Your task to perform on an android device: Open CNN.com Image 0: 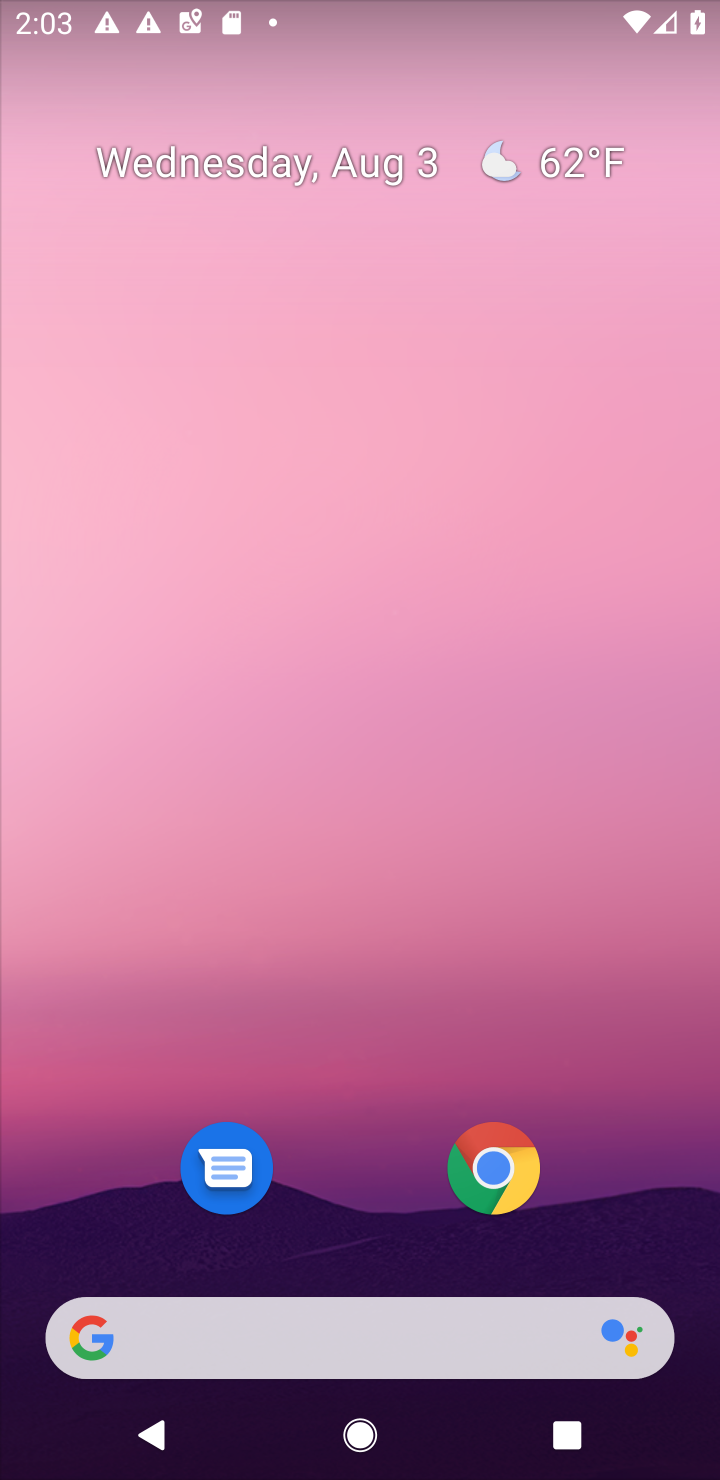
Step 0: click (498, 1168)
Your task to perform on an android device: Open CNN.com Image 1: 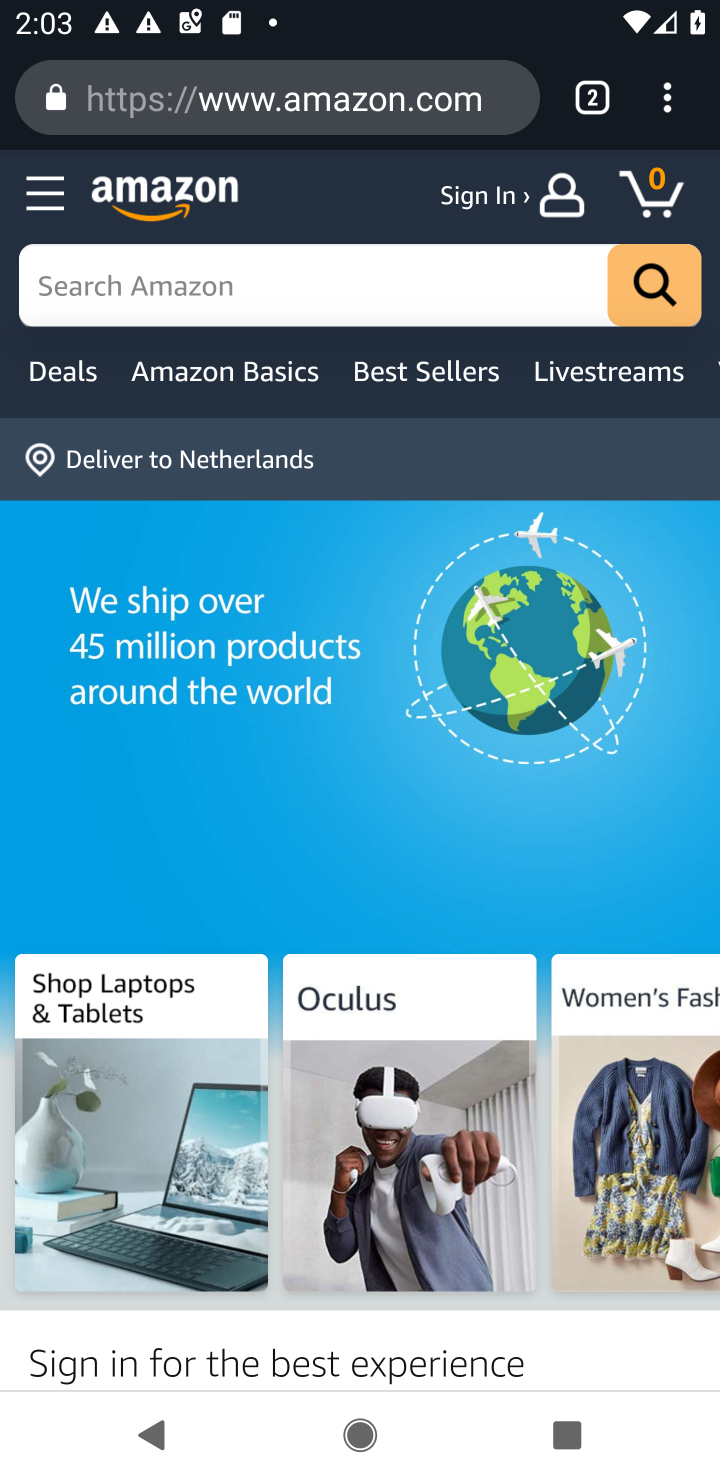
Step 1: click (499, 98)
Your task to perform on an android device: Open CNN.com Image 2: 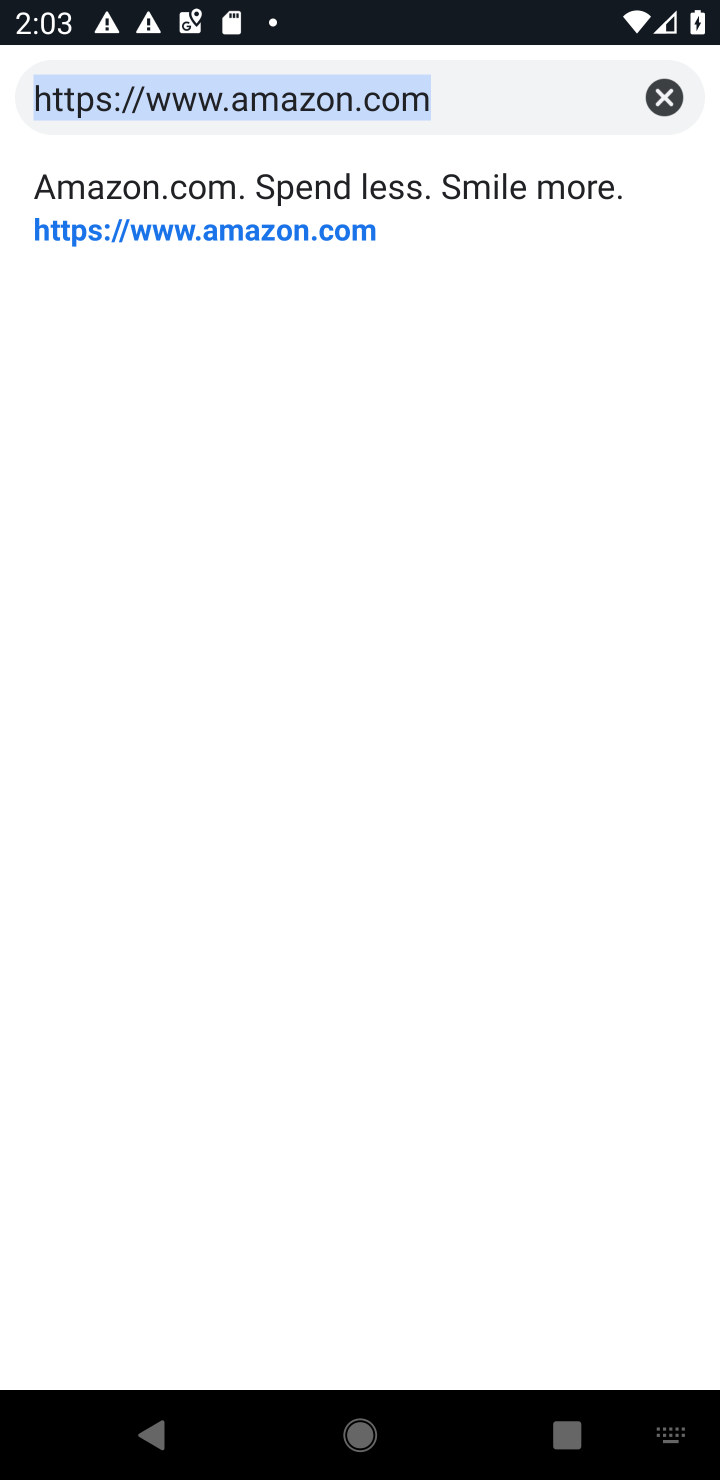
Step 2: click (667, 95)
Your task to perform on an android device: Open CNN.com Image 3: 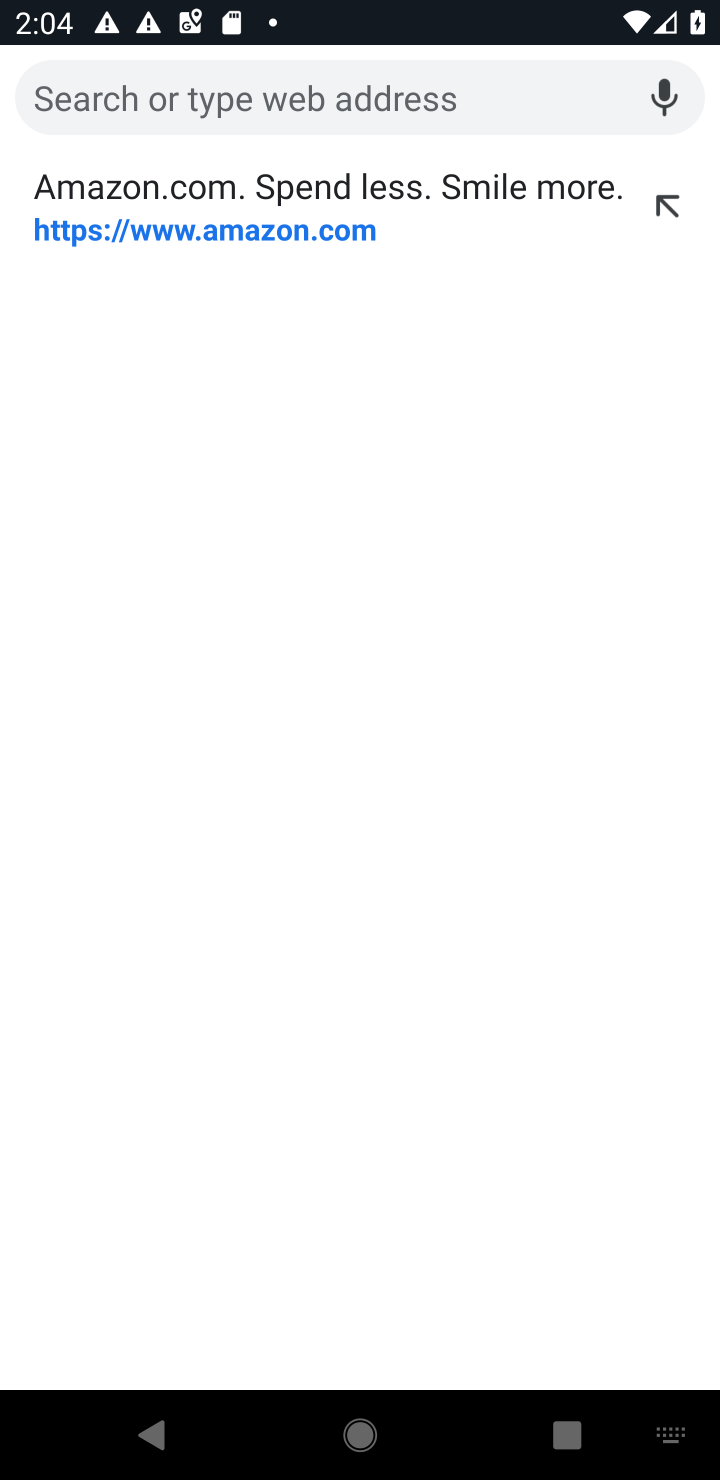
Step 3: type "cnn.com"
Your task to perform on an android device: Open CNN.com Image 4: 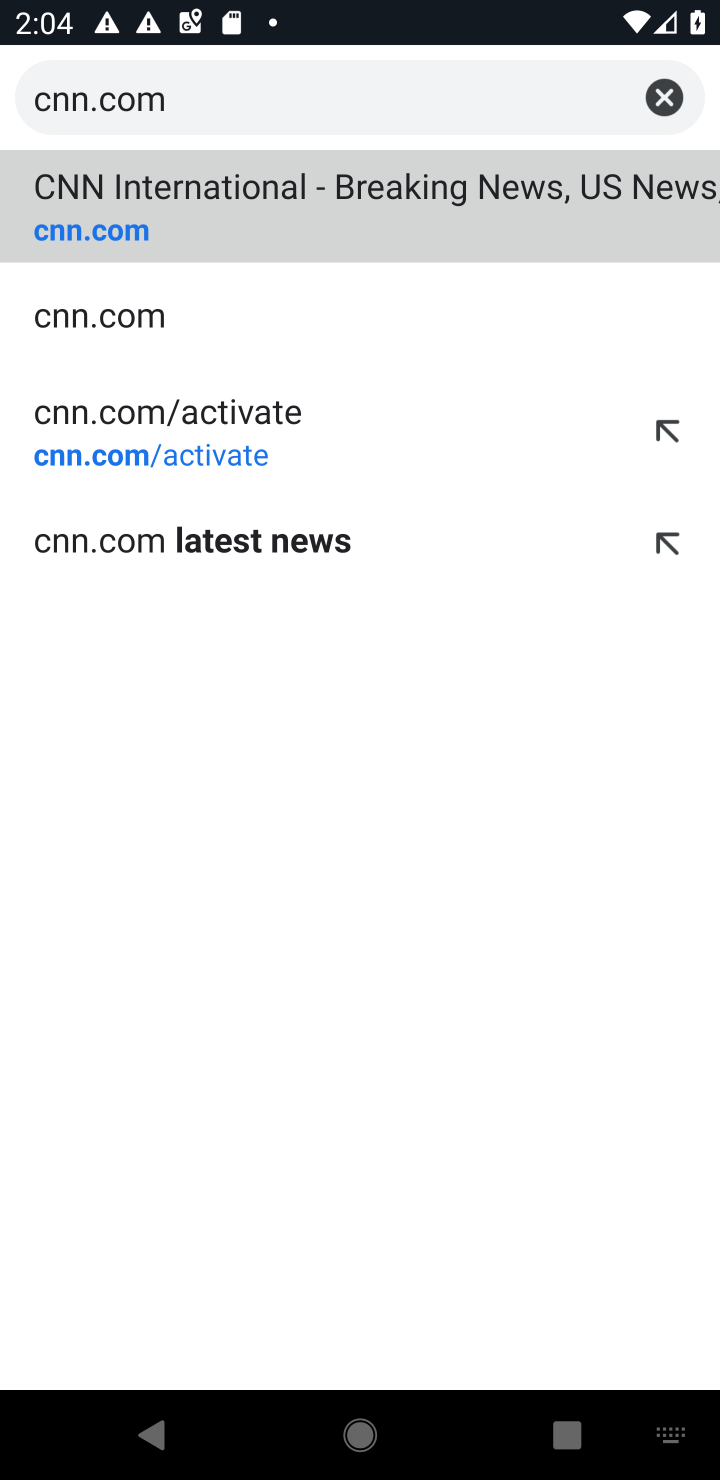
Step 4: click (128, 195)
Your task to perform on an android device: Open CNN.com Image 5: 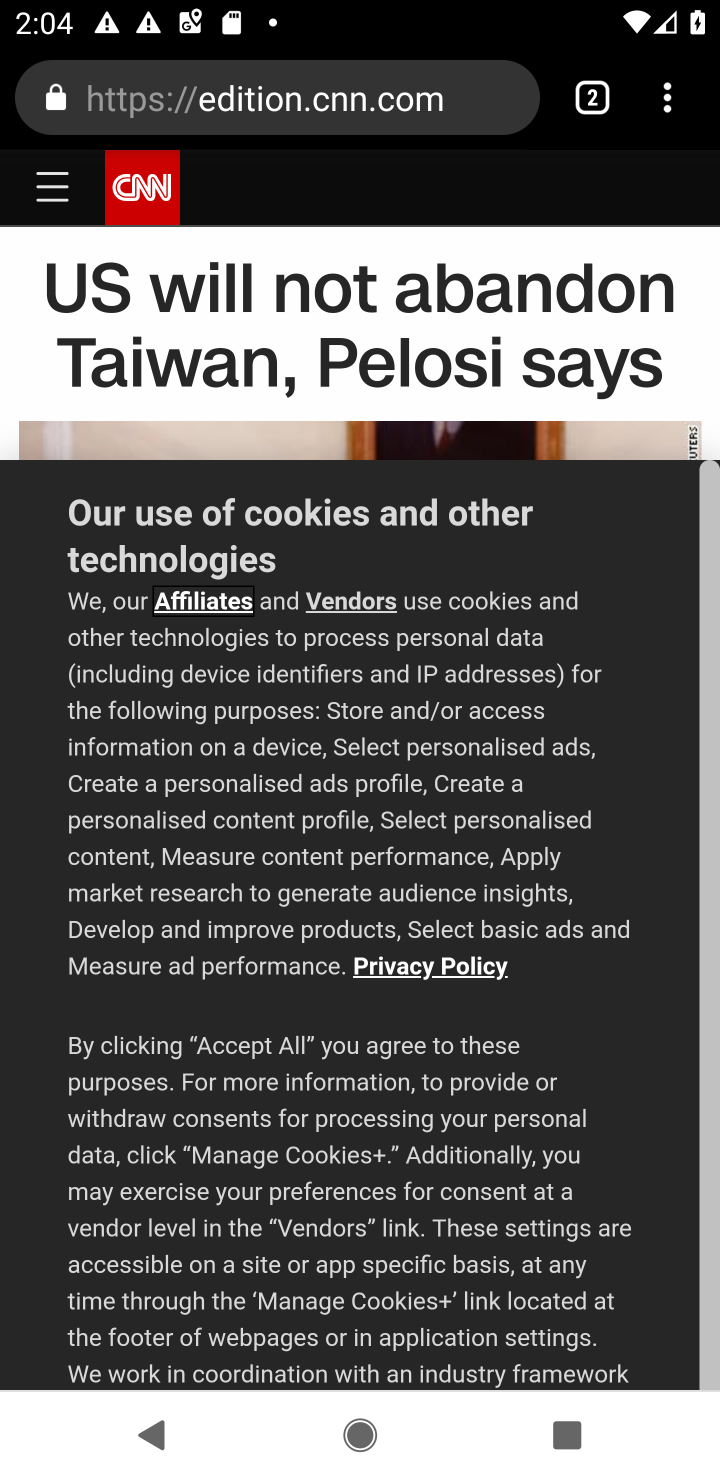
Step 5: drag from (466, 780) to (484, 363)
Your task to perform on an android device: Open CNN.com Image 6: 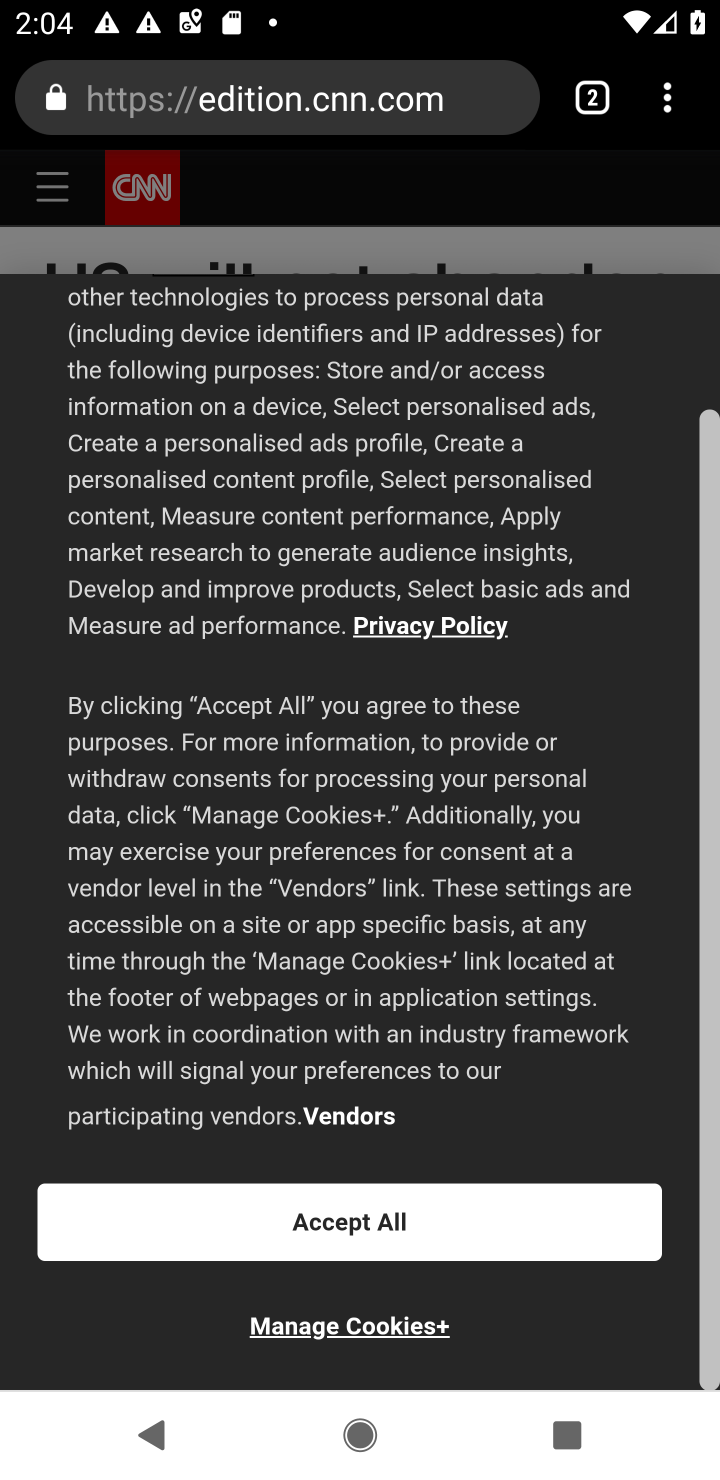
Step 6: click (318, 1219)
Your task to perform on an android device: Open CNN.com Image 7: 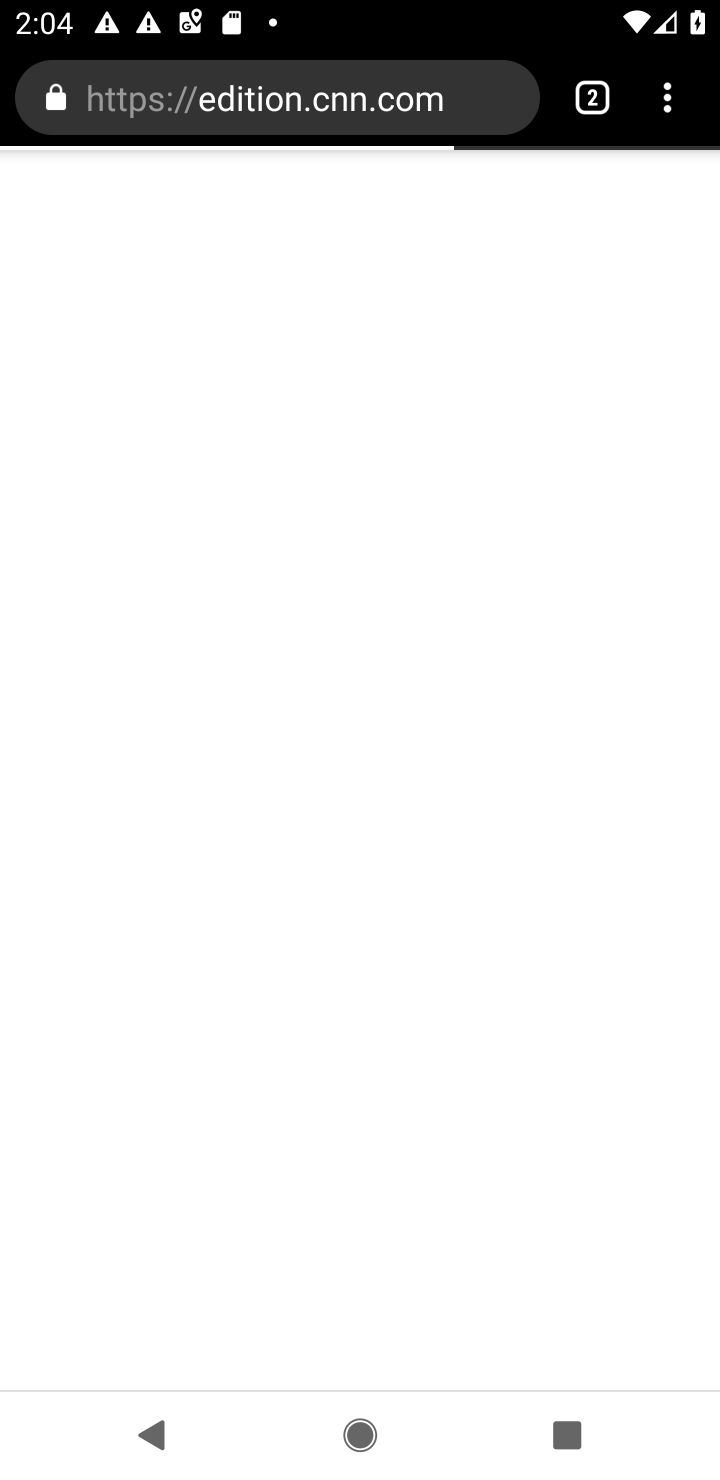
Step 7: task complete